Your task to perform on an android device: open app "Pluto TV - Live TV and Movies" (install if not already installed) and go to login screen Image 0: 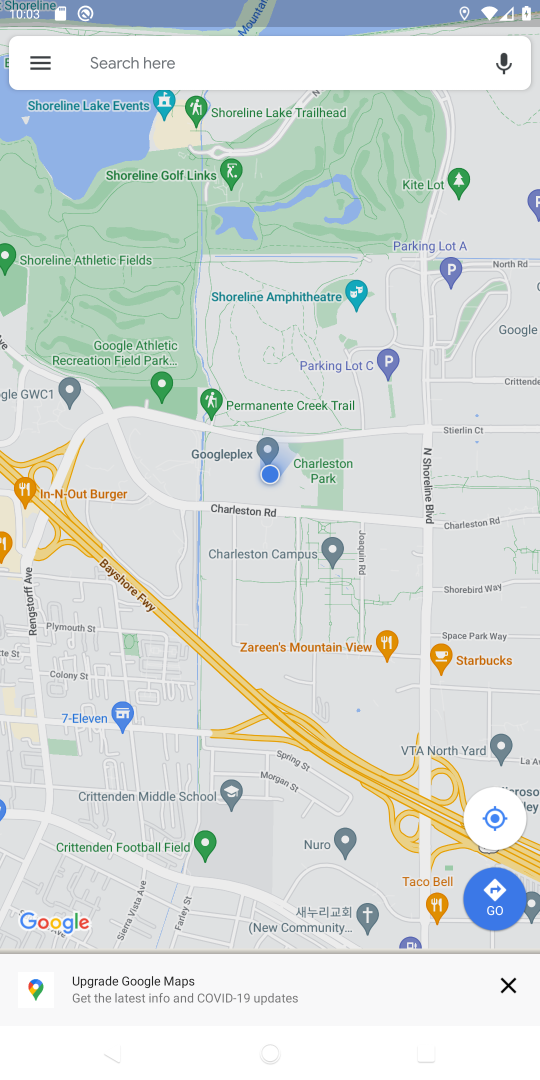
Step 0: task impossible